Your task to perform on an android device: check the backup settings in the google photos Image 0: 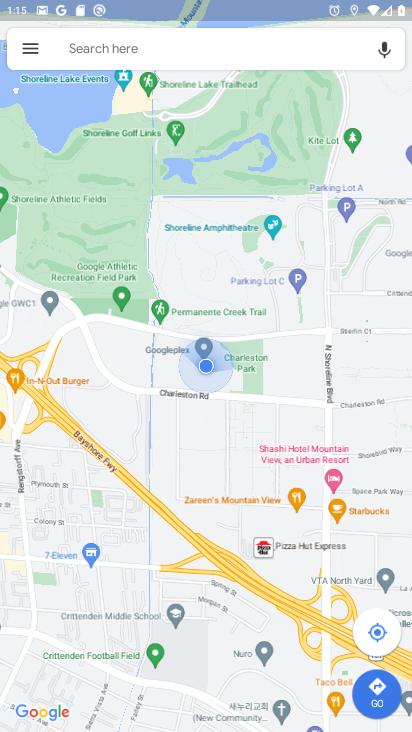
Step 0: press home button
Your task to perform on an android device: check the backup settings in the google photos Image 1: 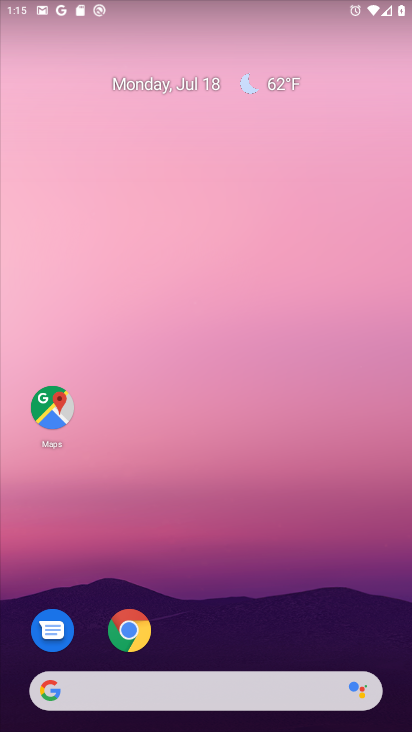
Step 1: drag from (205, 666) to (203, 221)
Your task to perform on an android device: check the backup settings in the google photos Image 2: 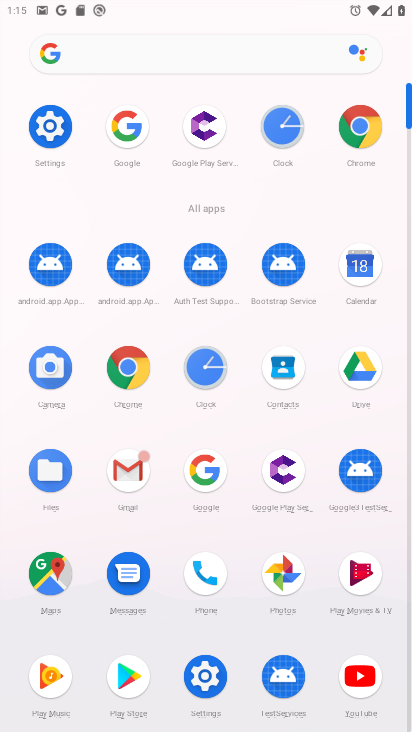
Step 2: click (268, 578)
Your task to perform on an android device: check the backup settings in the google photos Image 3: 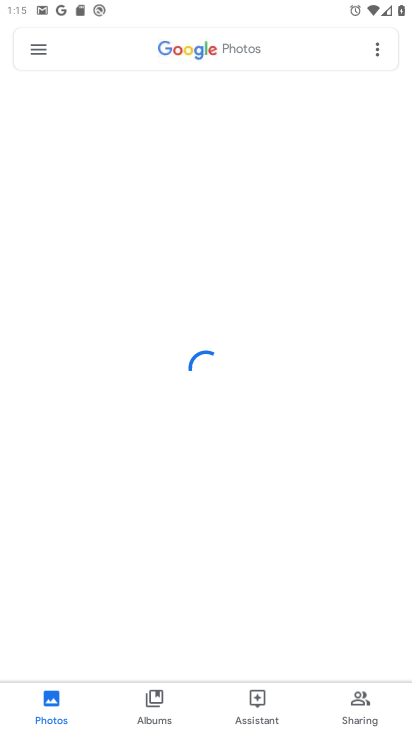
Step 3: click (35, 47)
Your task to perform on an android device: check the backup settings in the google photos Image 4: 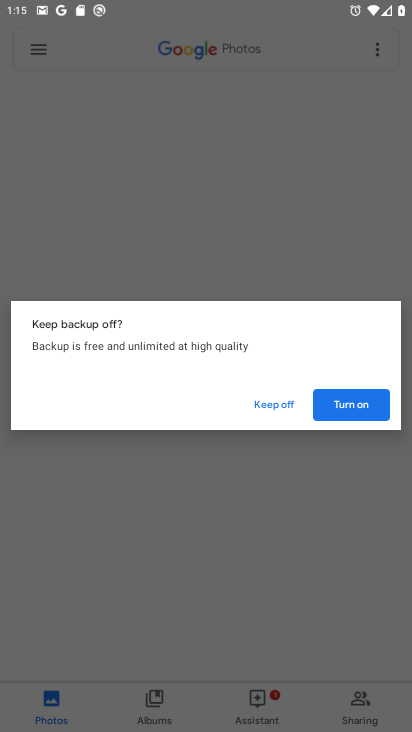
Step 4: click (361, 403)
Your task to perform on an android device: check the backup settings in the google photos Image 5: 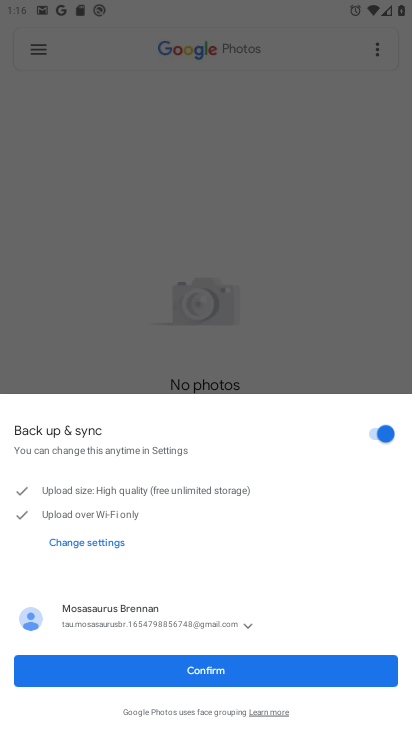
Step 5: click (223, 676)
Your task to perform on an android device: check the backup settings in the google photos Image 6: 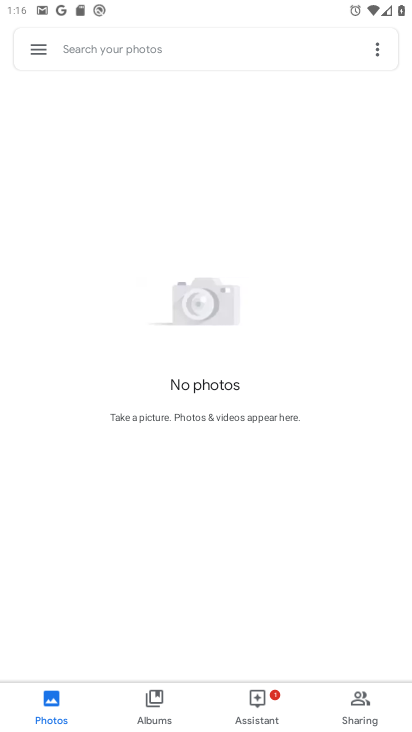
Step 6: click (27, 49)
Your task to perform on an android device: check the backup settings in the google photos Image 7: 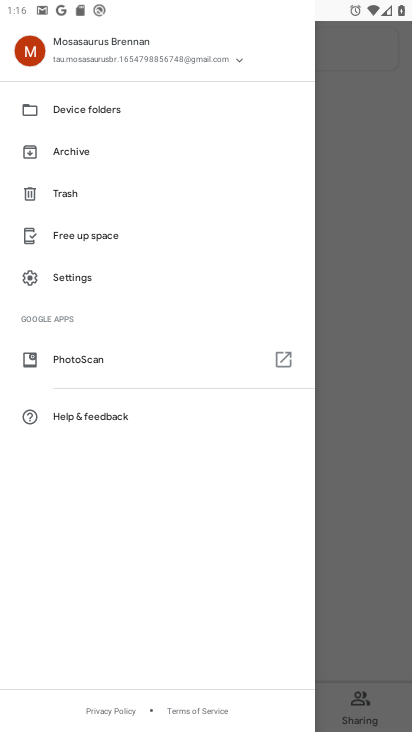
Step 7: click (77, 278)
Your task to perform on an android device: check the backup settings in the google photos Image 8: 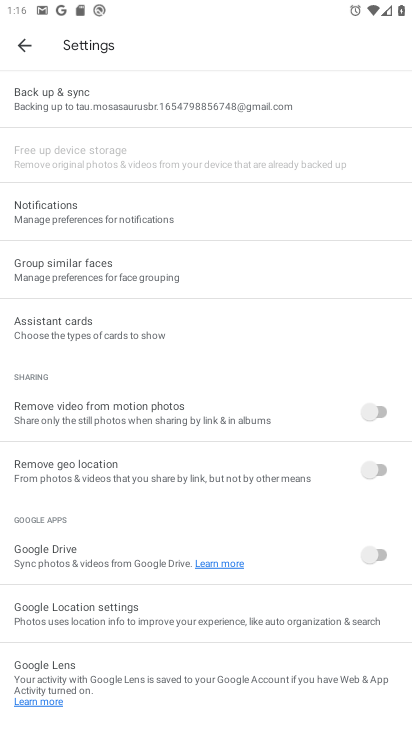
Step 8: click (69, 96)
Your task to perform on an android device: check the backup settings in the google photos Image 9: 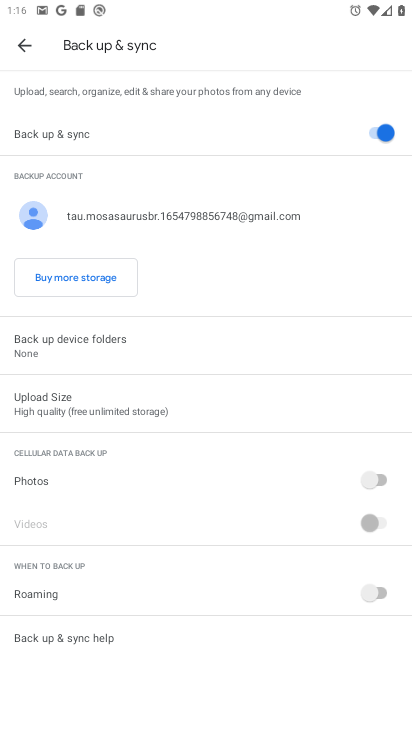
Step 9: task complete